Your task to perform on an android device: check data usage Image 0: 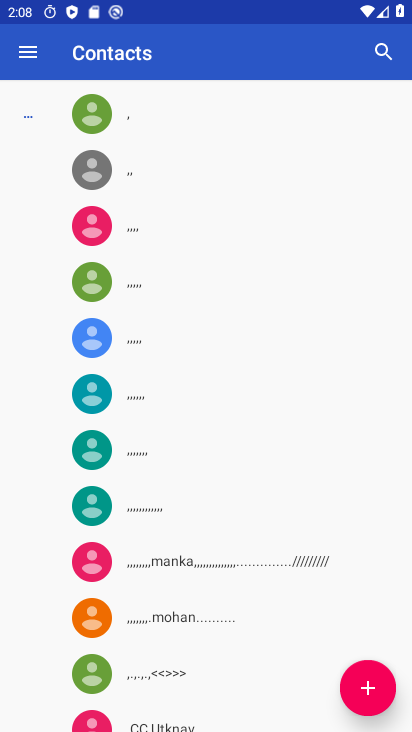
Step 0: press home button
Your task to perform on an android device: check data usage Image 1: 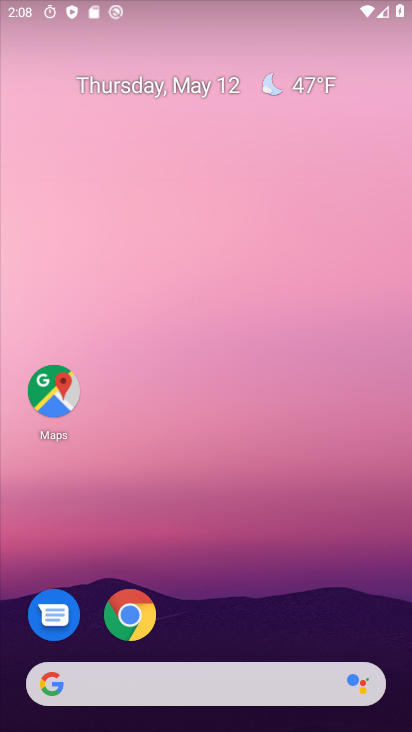
Step 1: drag from (242, 616) to (229, 98)
Your task to perform on an android device: check data usage Image 2: 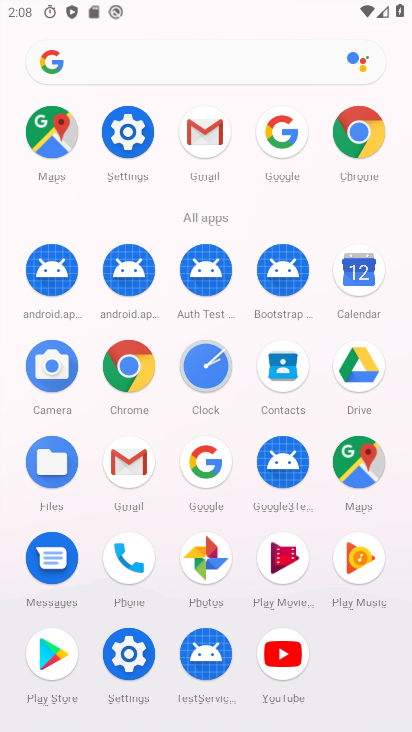
Step 2: click (131, 135)
Your task to perform on an android device: check data usage Image 3: 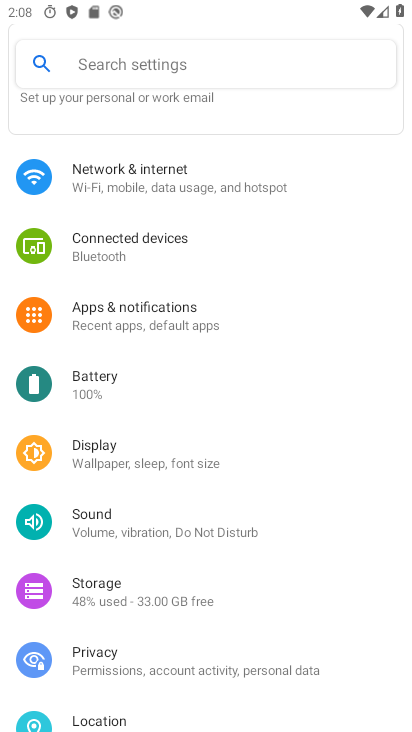
Step 3: click (151, 180)
Your task to perform on an android device: check data usage Image 4: 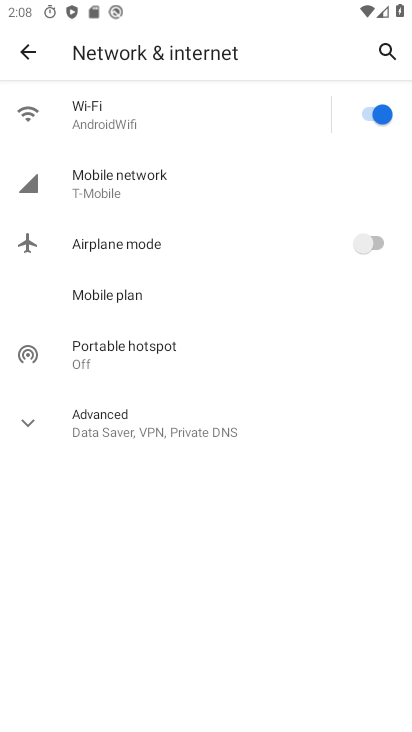
Step 4: click (153, 194)
Your task to perform on an android device: check data usage Image 5: 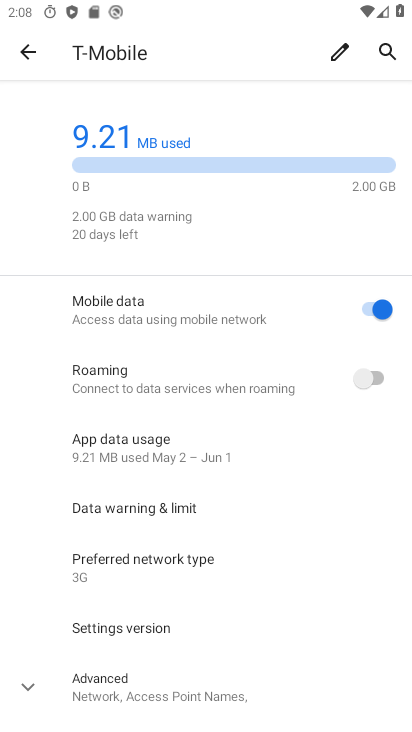
Step 5: task complete